Your task to perform on an android device: Open display settings Image 0: 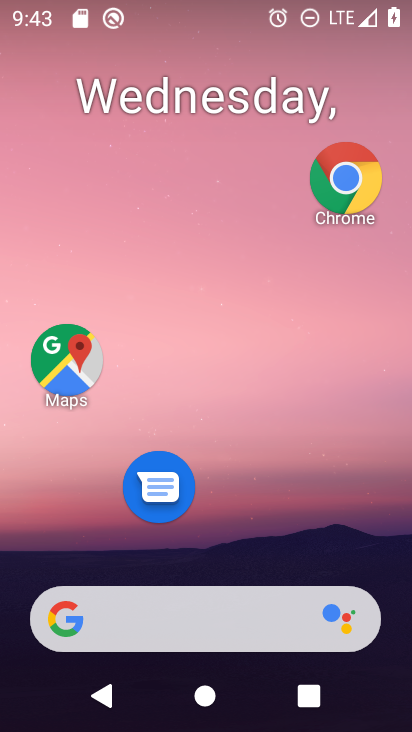
Step 0: press home button
Your task to perform on an android device: Open display settings Image 1: 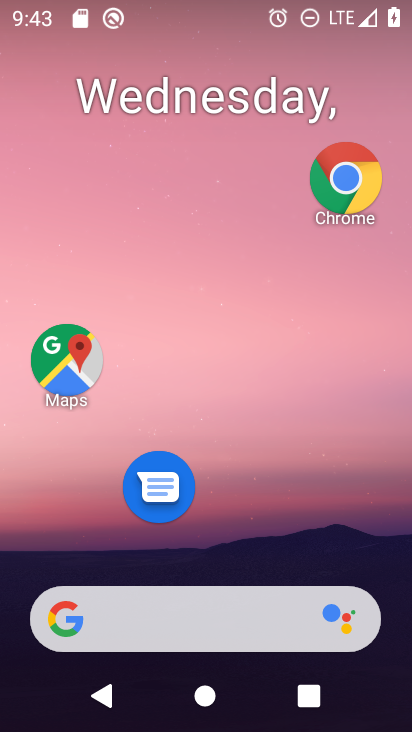
Step 1: drag from (235, 610) to (252, 151)
Your task to perform on an android device: Open display settings Image 2: 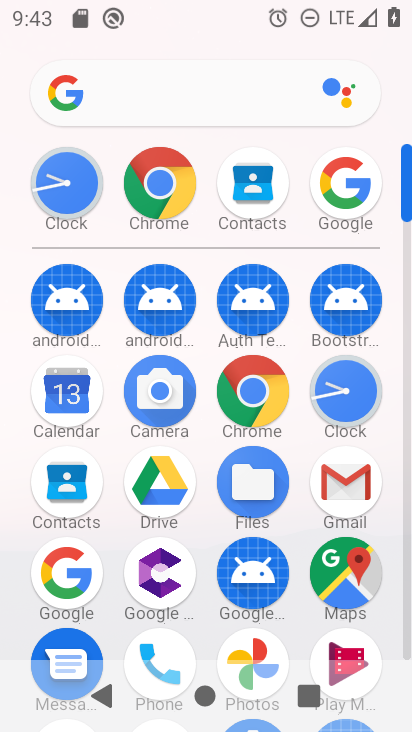
Step 2: drag from (259, 479) to (293, 215)
Your task to perform on an android device: Open display settings Image 3: 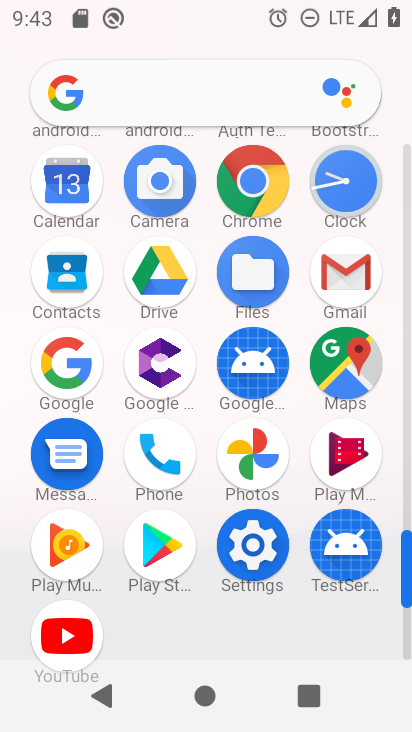
Step 3: click (264, 556)
Your task to perform on an android device: Open display settings Image 4: 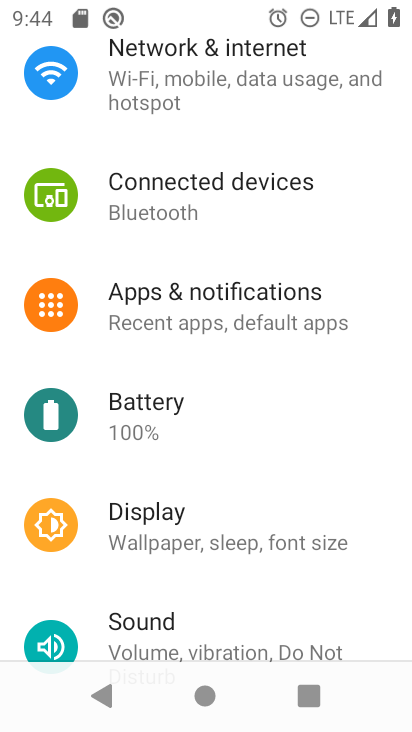
Step 4: drag from (269, 368) to (253, 458)
Your task to perform on an android device: Open display settings Image 5: 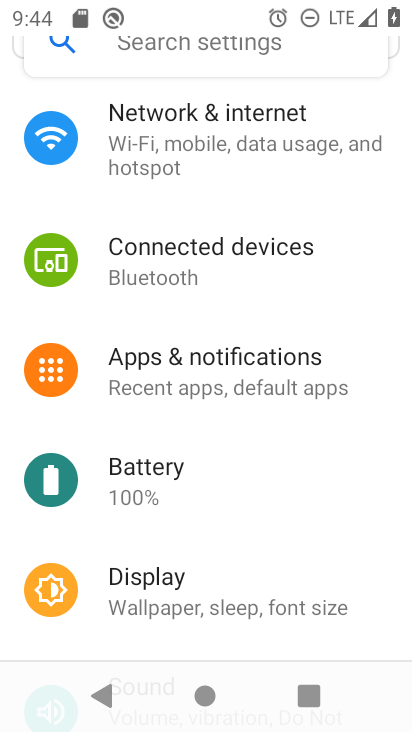
Step 5: click (261, 592)
Your task to perform on an android device: Open display settings Image 6: 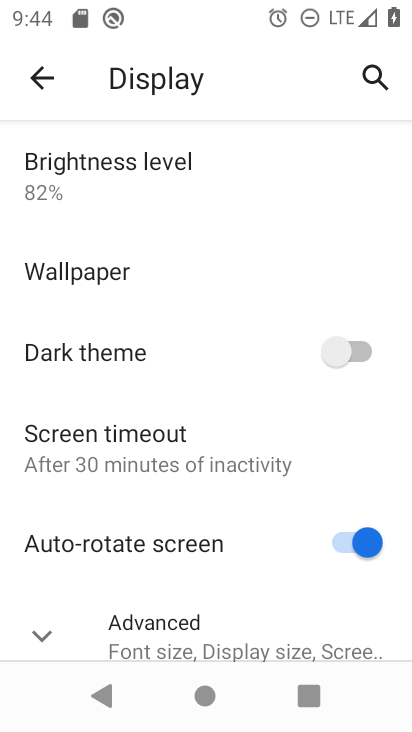
Step 6: task complete